Your task to perform on an android device: install app "Walmart Shopping & Grocery" Image 0: 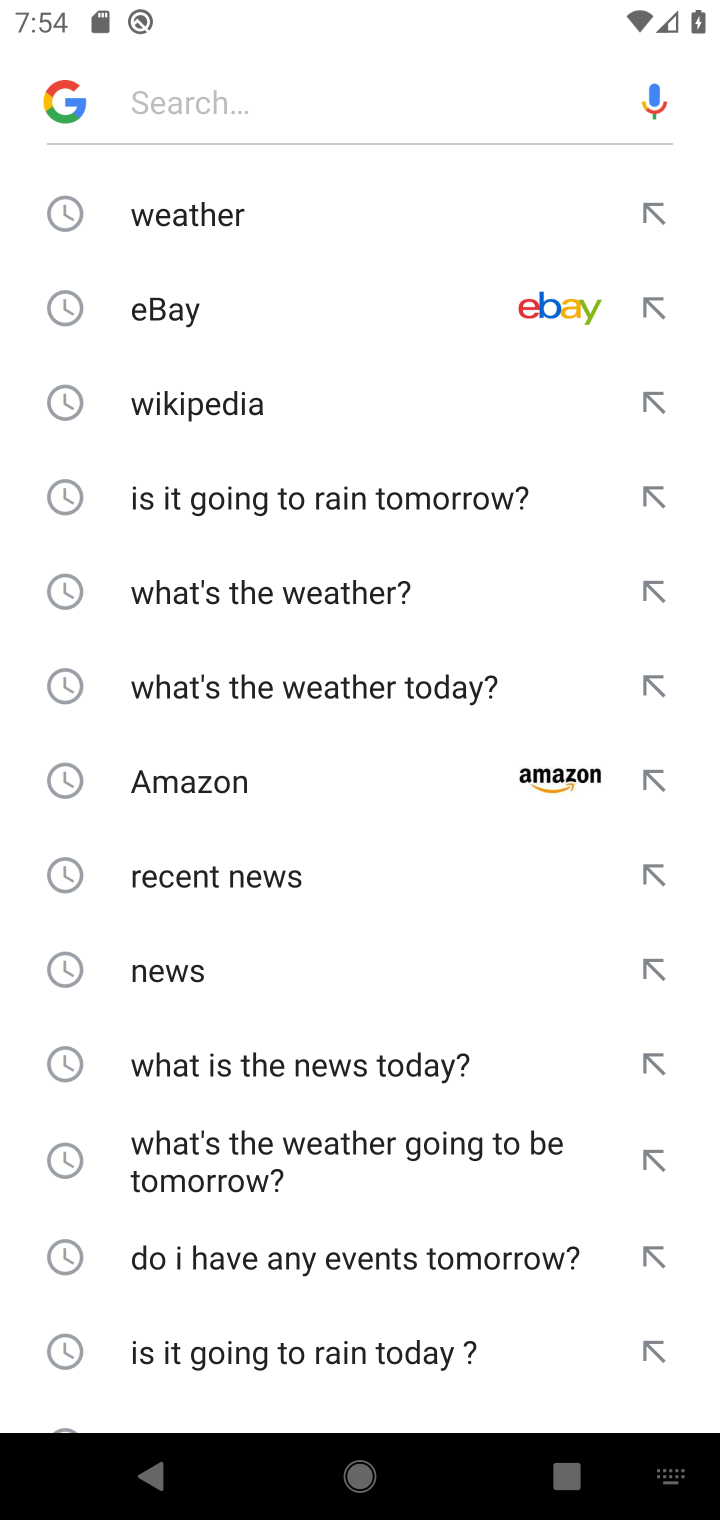
Step 0: press home button
Your task to perform on an android device: install app "Walmart Shopping & Grocery" Image 1: 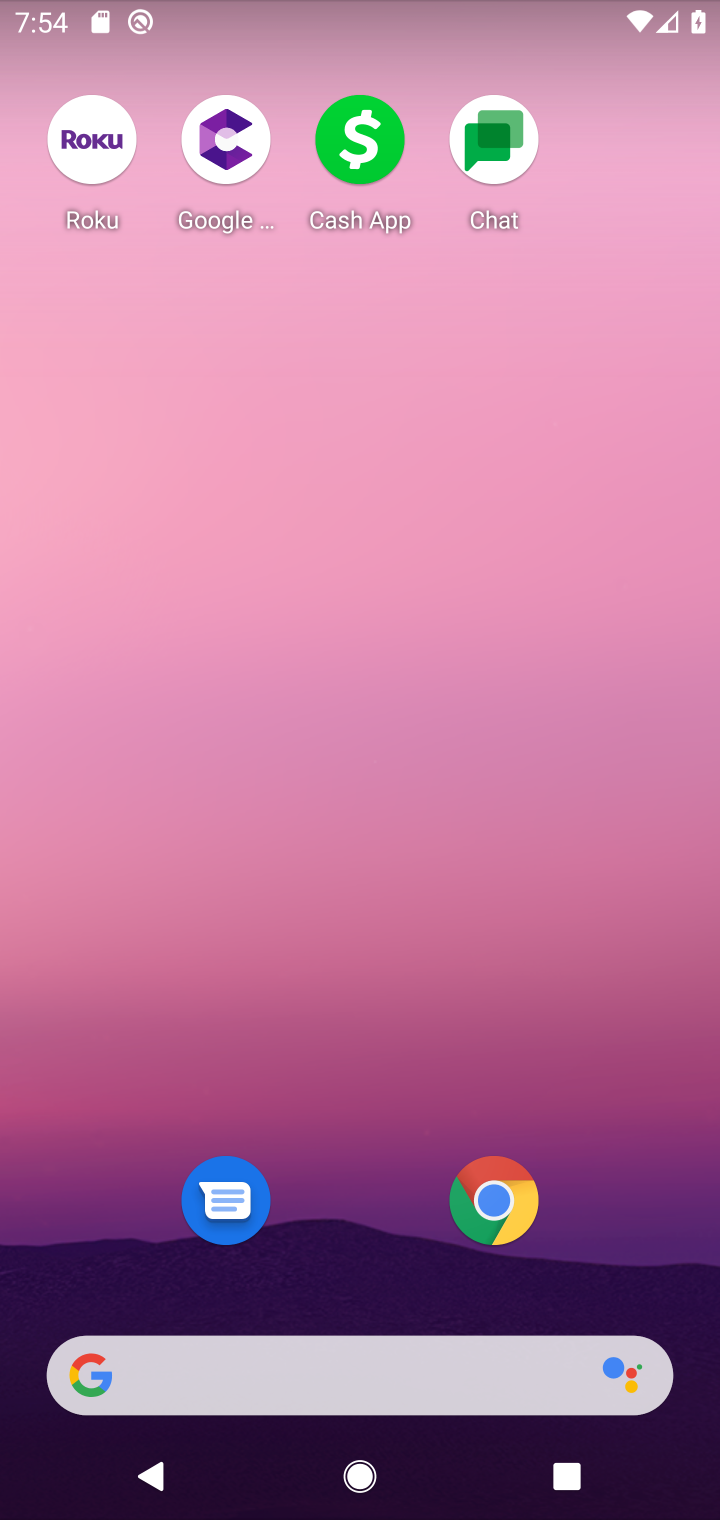
Step 1: drag from (299, 911) to (520, 14)
Your task to perform on an android device: install app "Walmart Shopping & Grocery" Image 2: 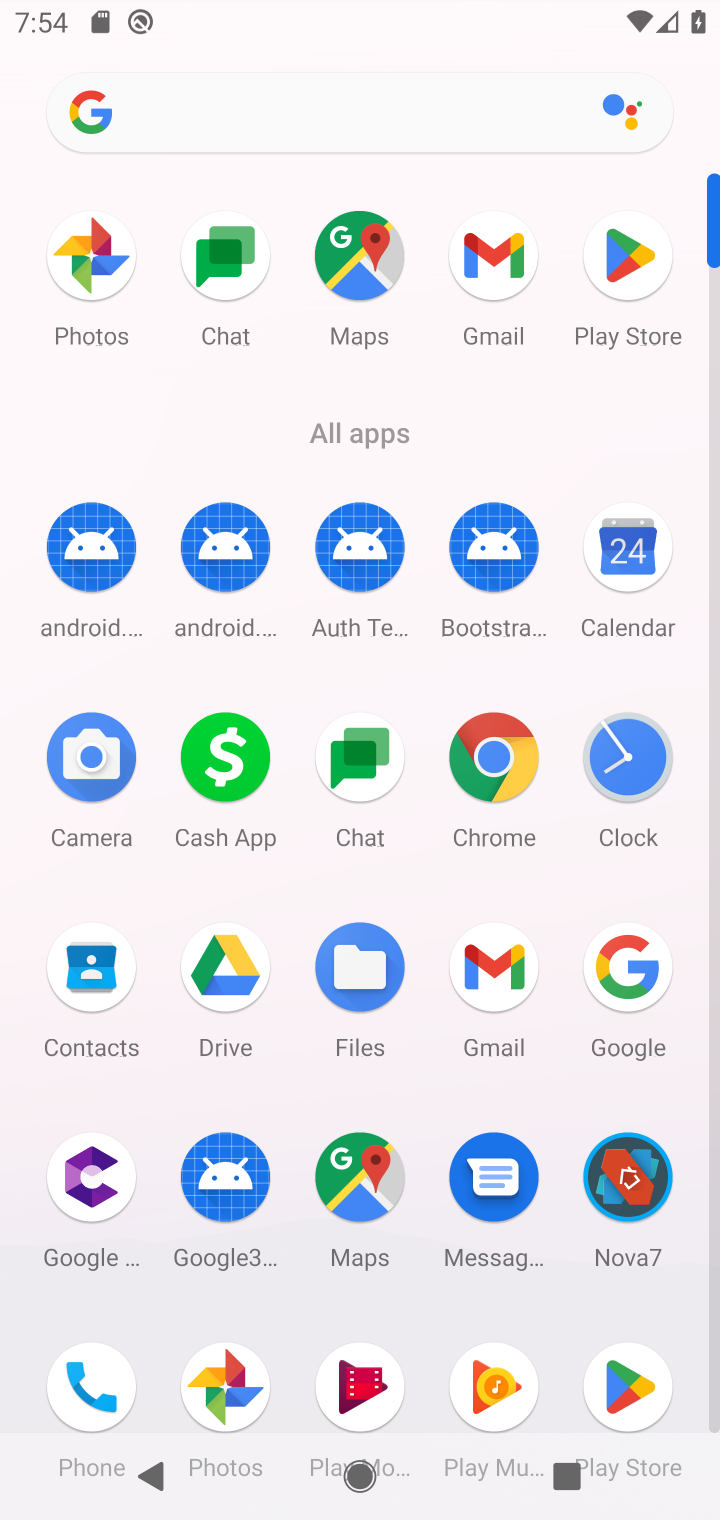
Step 2: click (627, 452)
Your task to perform on an android device: install app "Walmart Shopping & Grocery" Image 3: 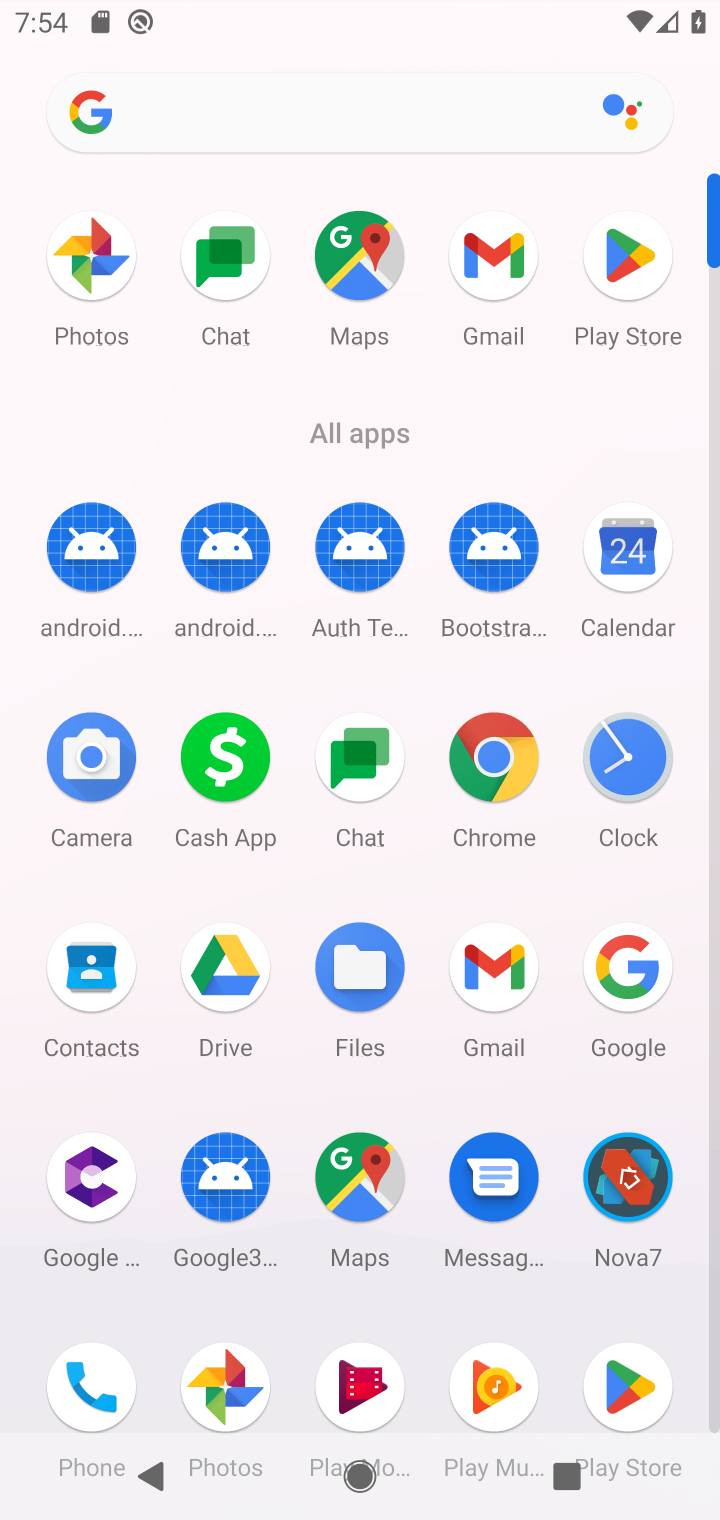
Step 3: click (610, 213)
Your task to perform on an android device: install app "Walmart Shopping & Grocery" Image 4: 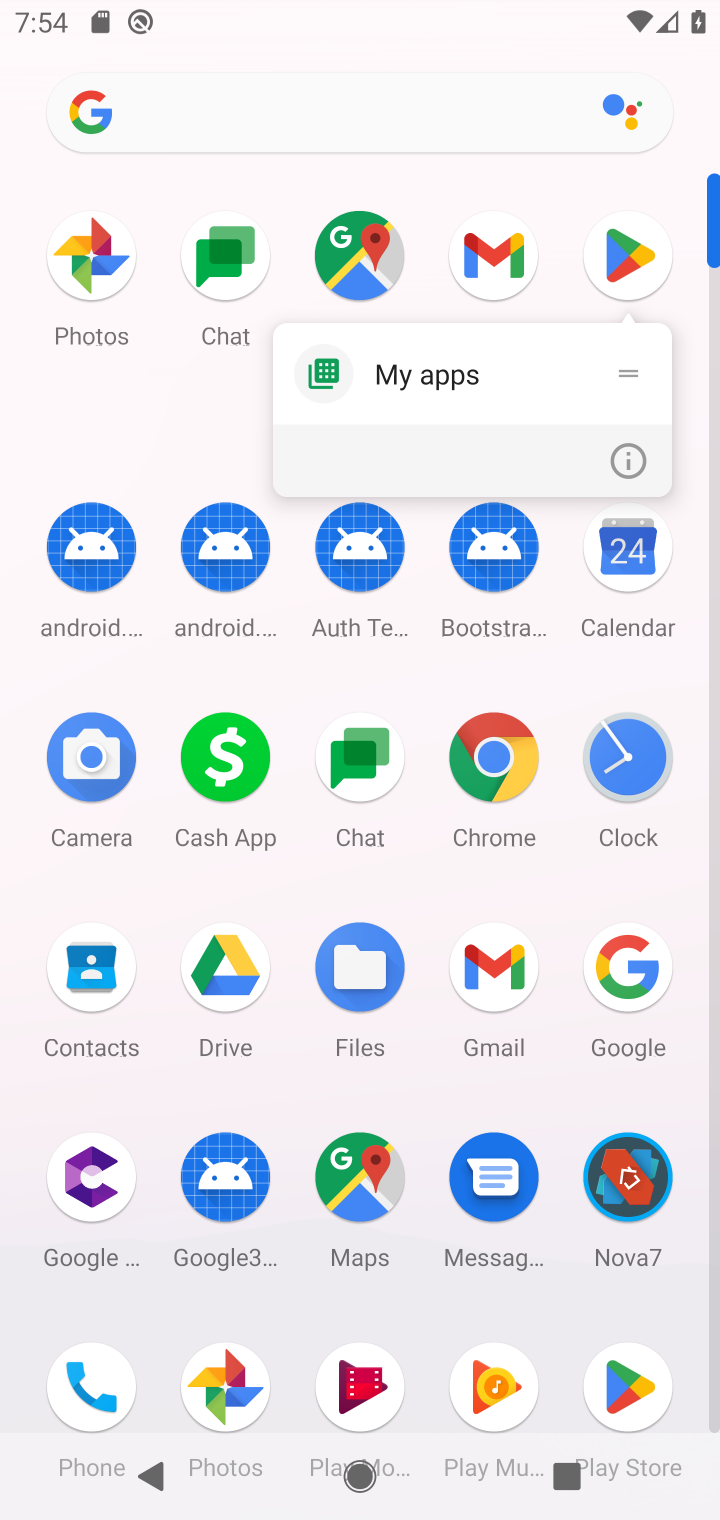
Step 4: click (630, 247)
Your task to perform on an android device: install app "Walmart Shopping & Grocery" Image 5: 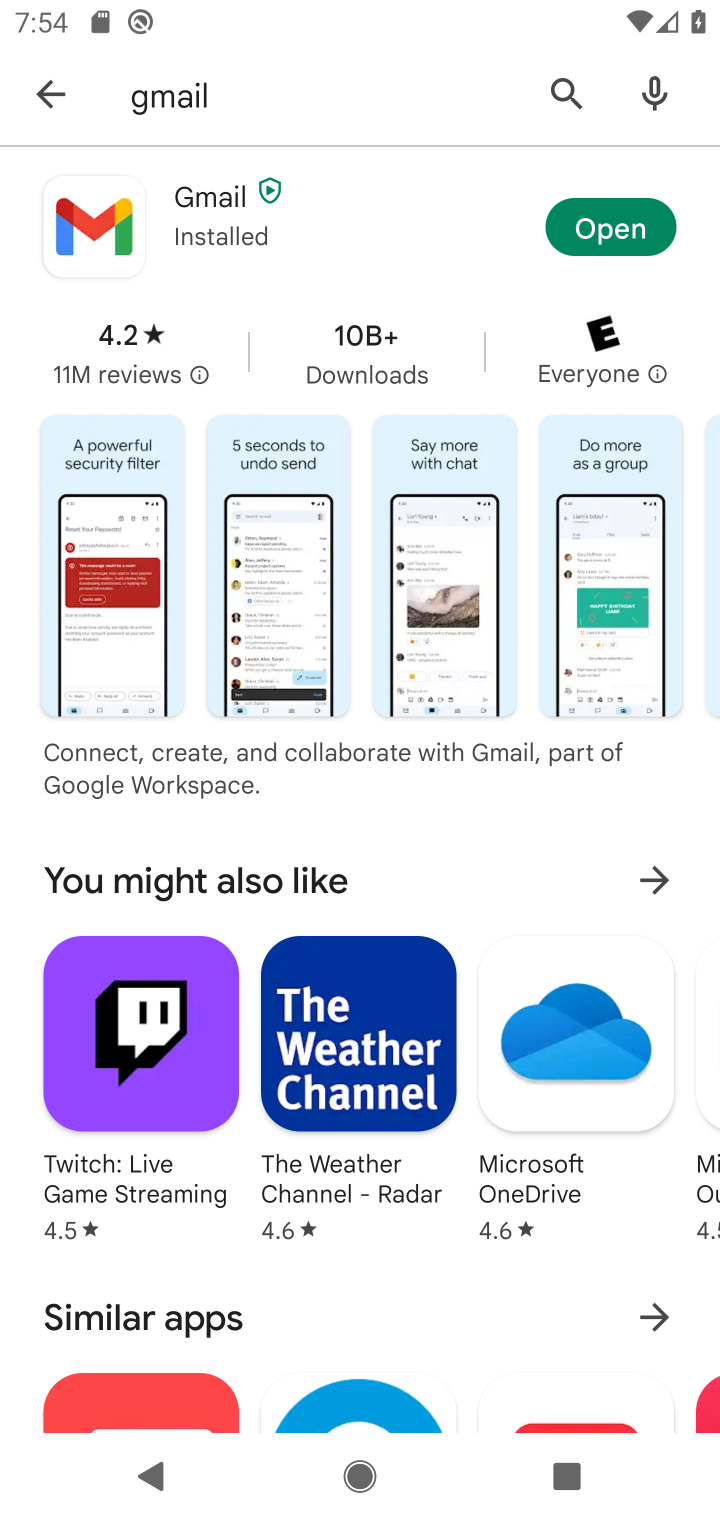
Step 5: click (218, 98)
Your task to perform on an android device: install app "Walmart Shopping & Grocery" Image 6: 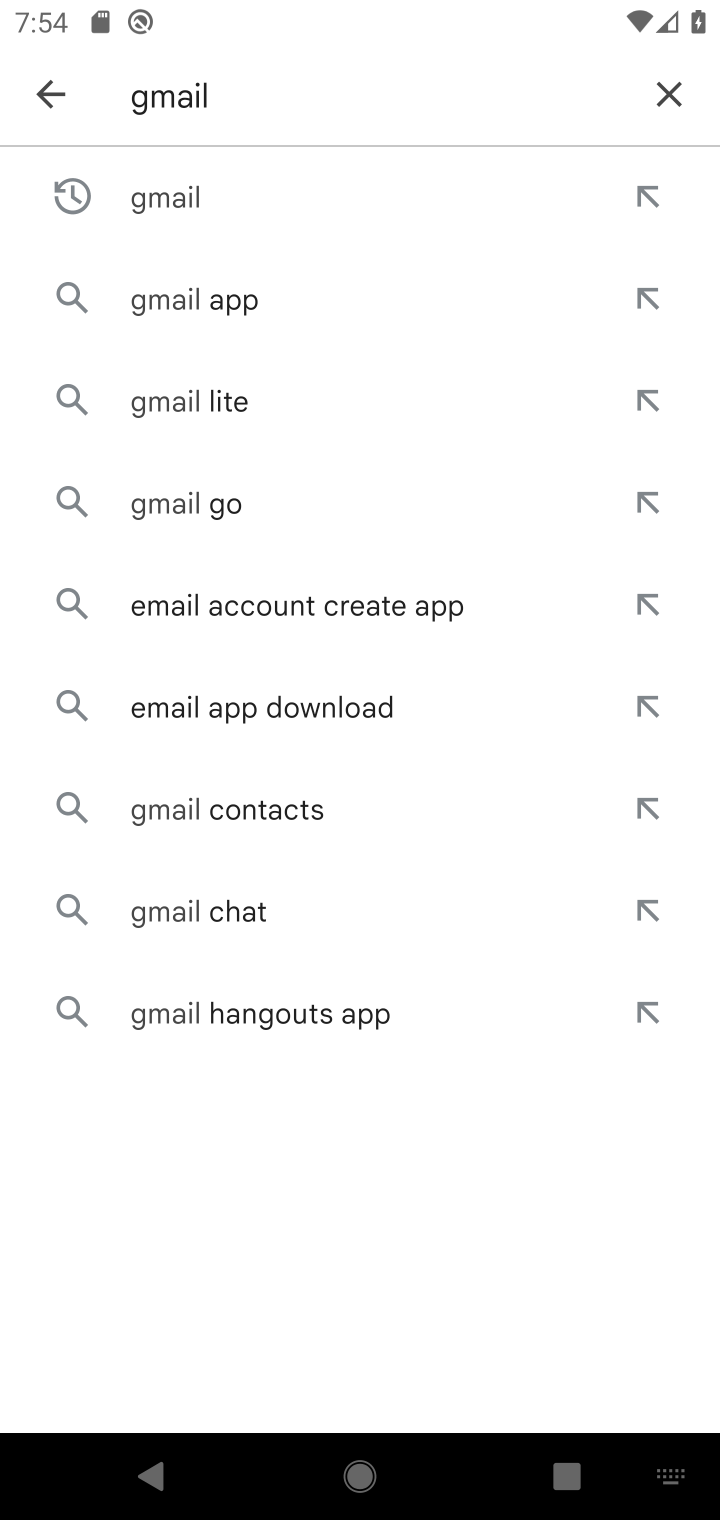
Step 6: click (671, 94)
Your task to perform on an android device: install app "Walmart Shopping & Grocery" Image 7: 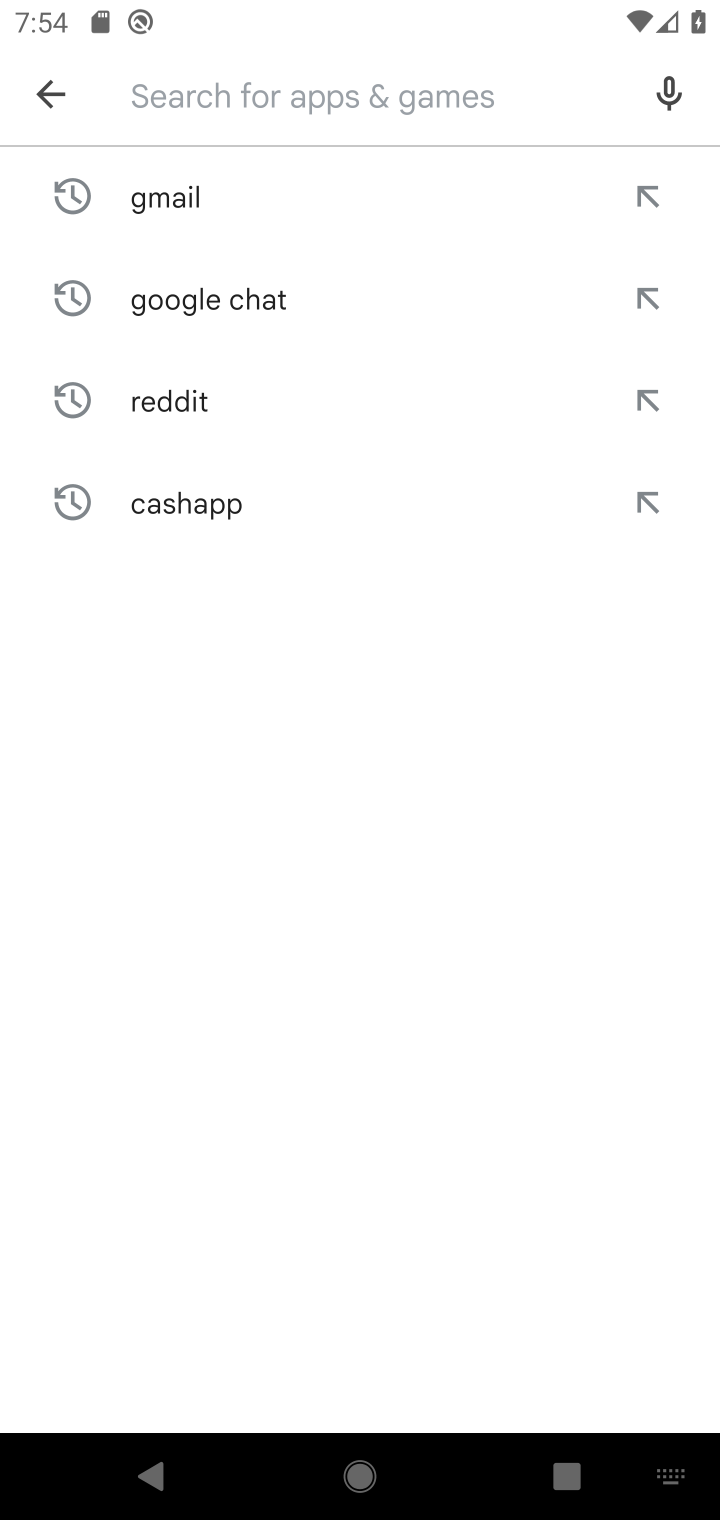
Step 7: type "Walmart"
Your task to perform on an android device: install app "Walmart Shopping & Grocery" Image 8: 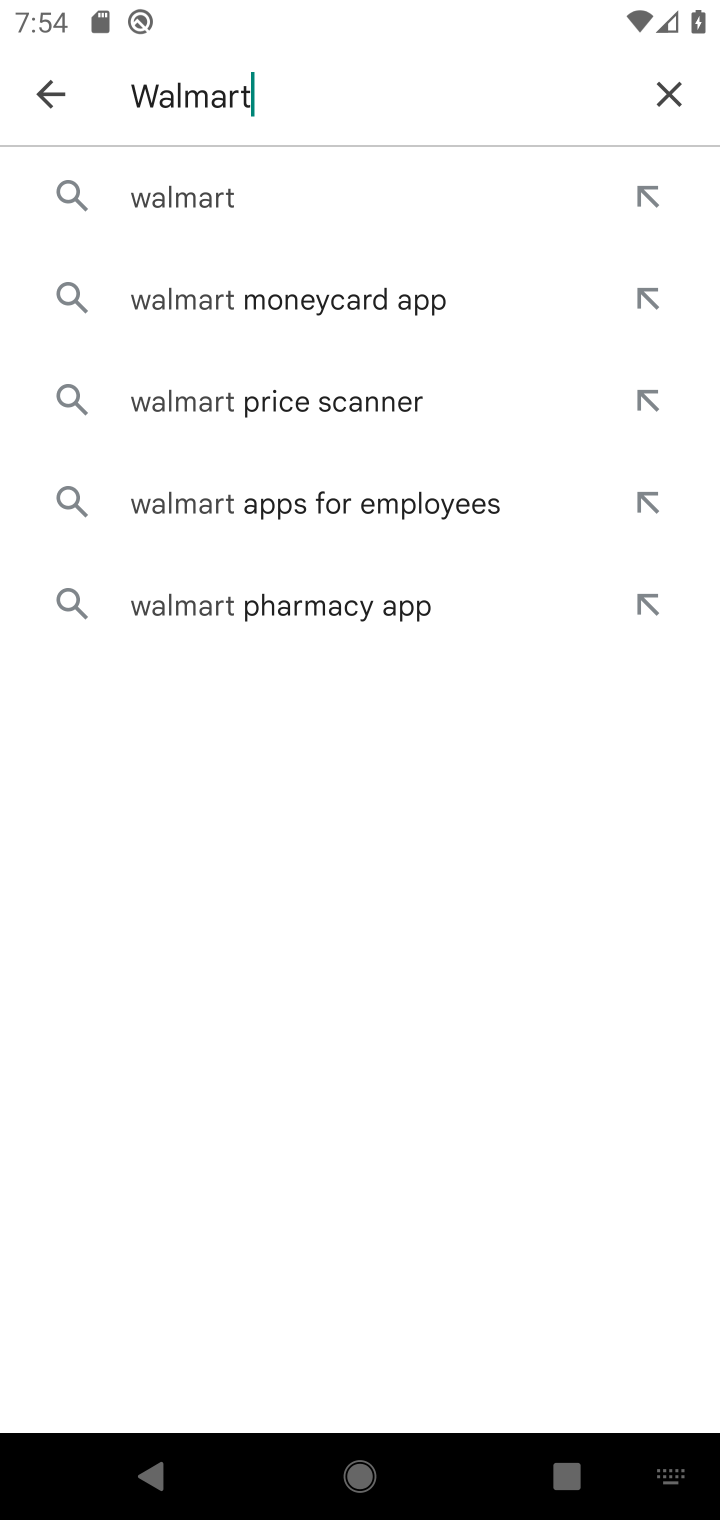
Step 8: click (265, 194)
Your task to perform on an android device: install app "Walmart Shopping & Grocery" Image 9: 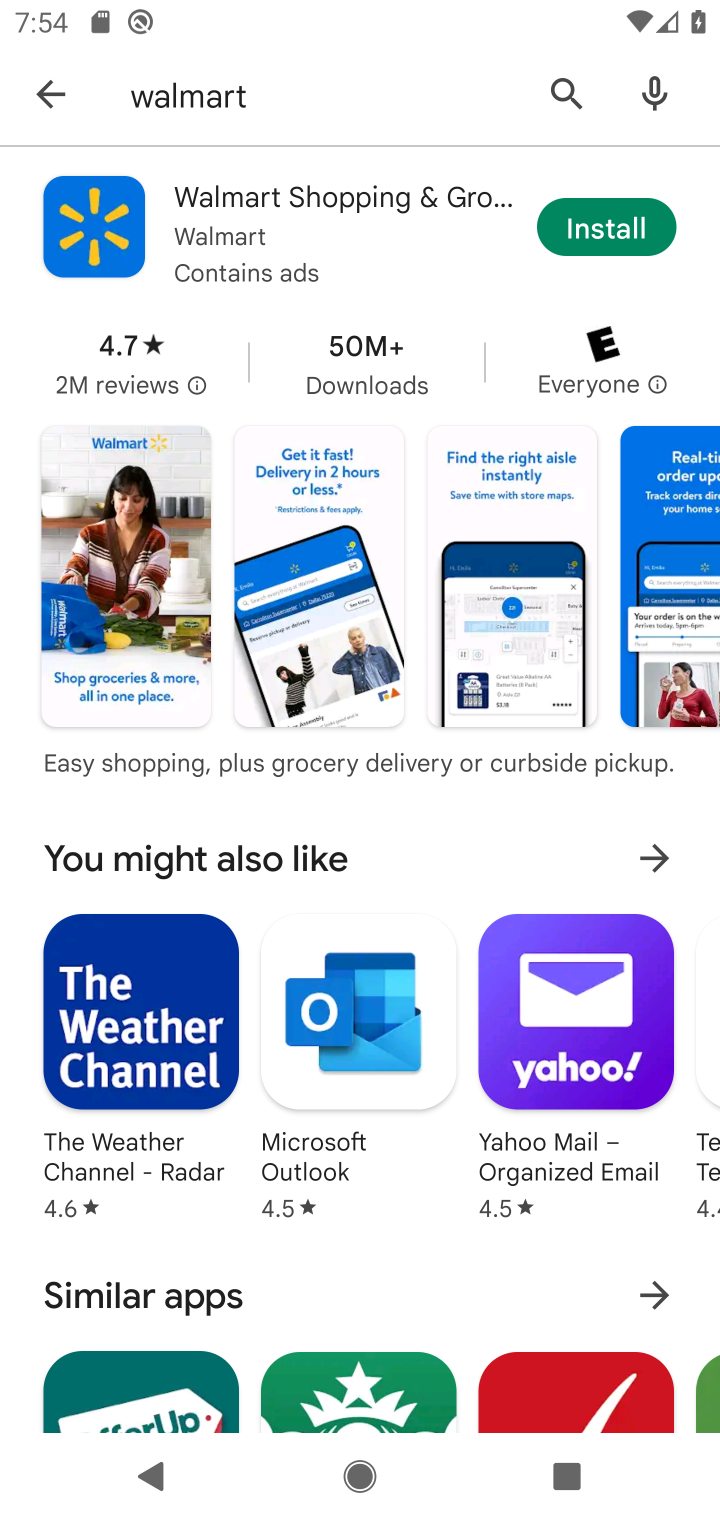
Step 9: click (601, 234)
Your task to perform on an android device: install app "Walmart Shopping & Grocery" Image 10: 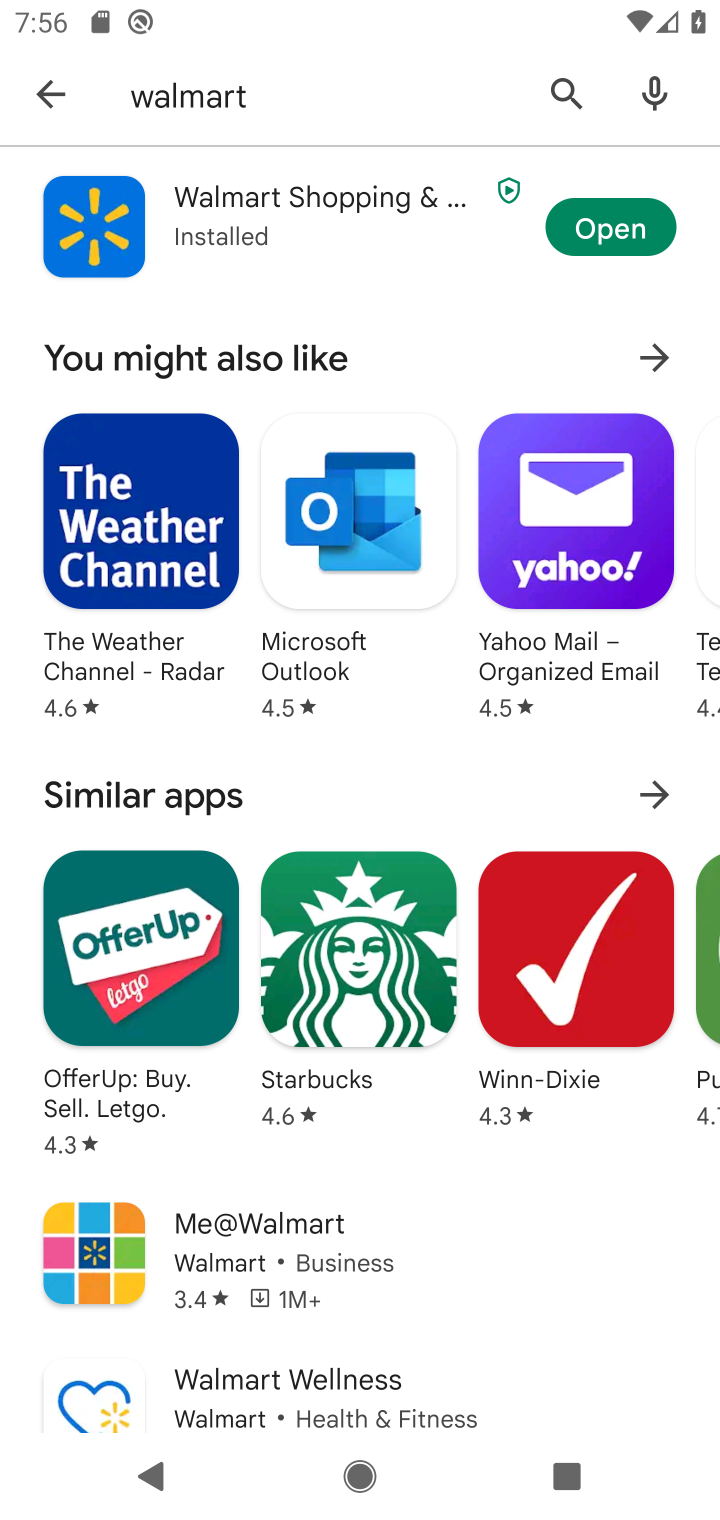
Step 10: task complete